Your task to perform on an android device: When is my next meeting? Image 0: 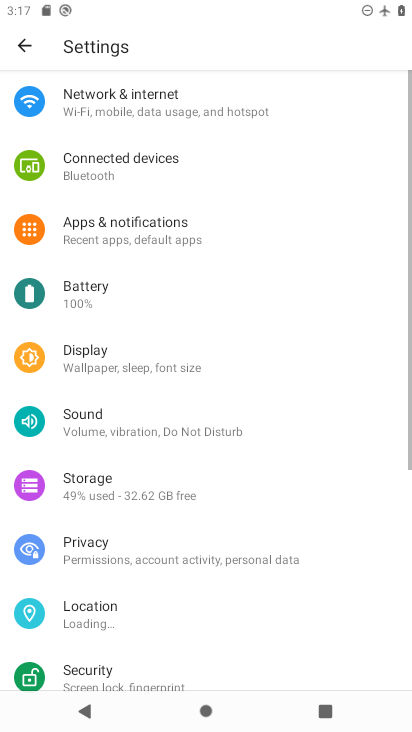
Step 0: press home button
Your task to perform on an android device: When is my next meeting? Image 1: 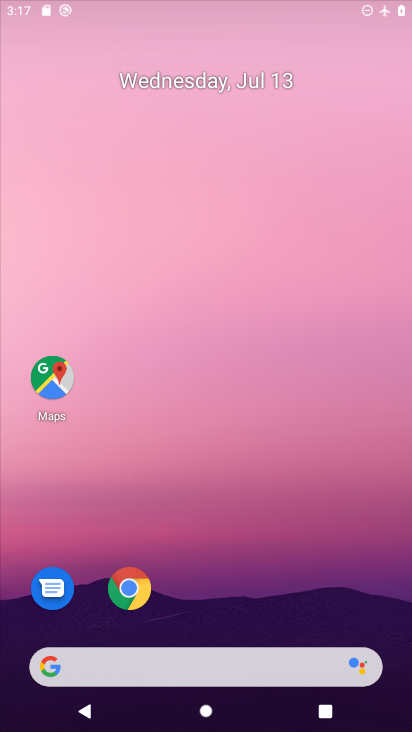
Step 1: drag from (199, 616) to (227, 36)
Your task to perform on an android device: When is my next meeting? Image 2: 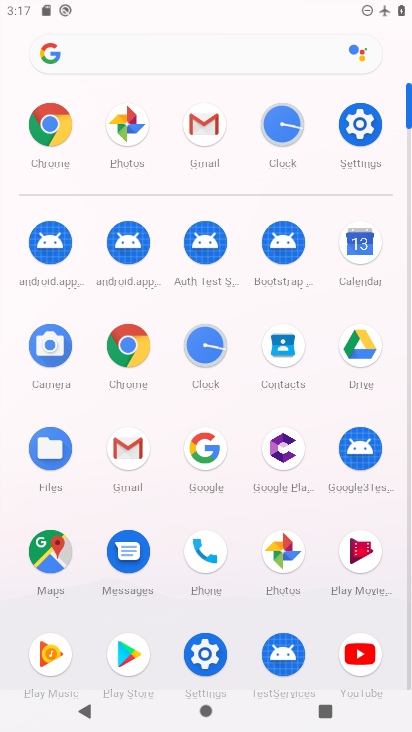
Step 2: click (355, 250)
Your task to perform on an android device: When is my next meeting? Image 3: 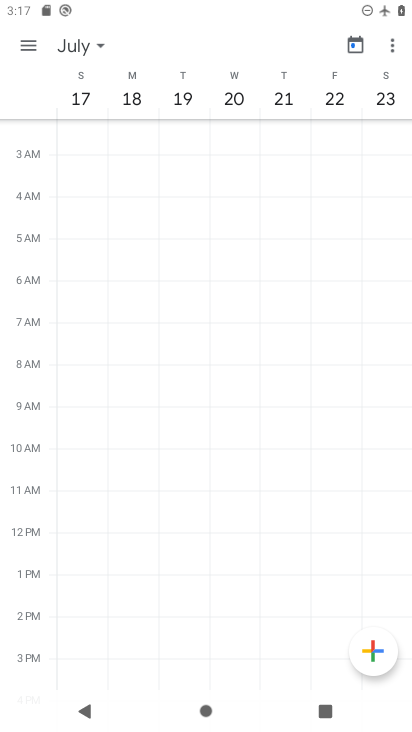
Step 3: click (355, 48)
Your task to perform on an android device: When is my next meeting? Image 4: 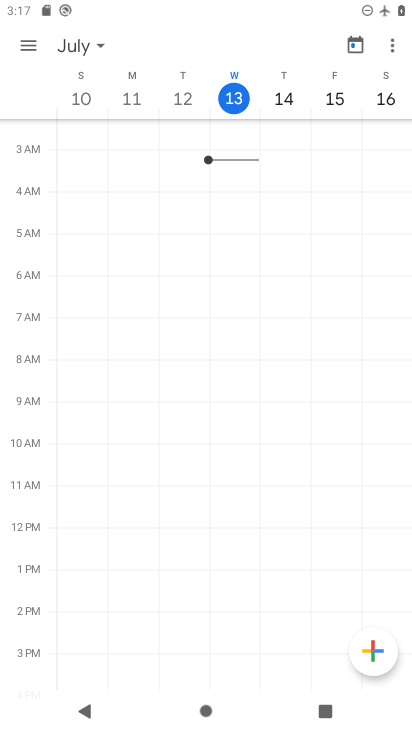
Step 4: click (280, 103)
Your task to perform on an android device: When is my next meeting? Image 5: 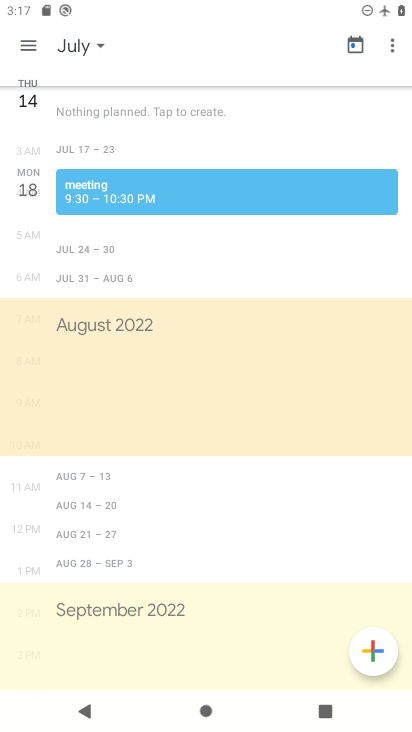
Step 5: drag from (280, 103) to (7, 69)
Your task to perform on an android device: When is my next meeting? Image 6: 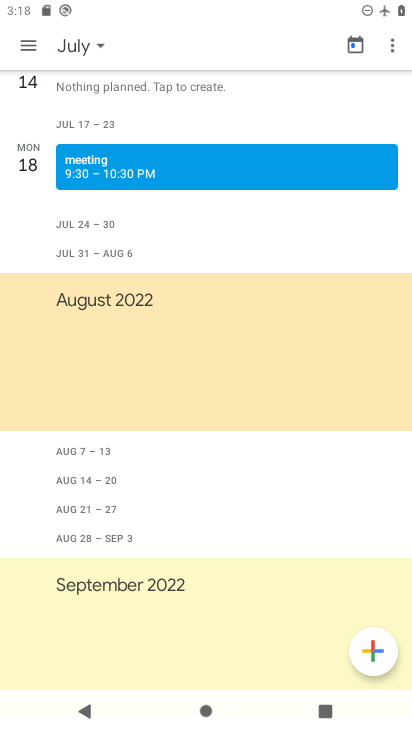
Step 6: click (61, 157)
Your task to perform on an android device: When is my next meeting? Image 7: 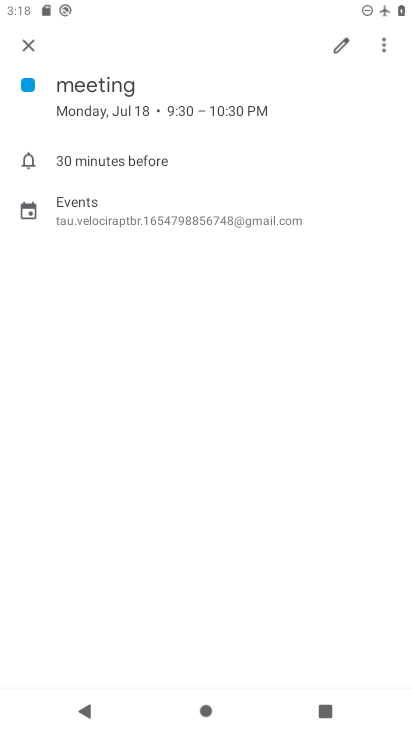
Step 7: task complete